Your task to perform on an android device: Check the weather Image 0: 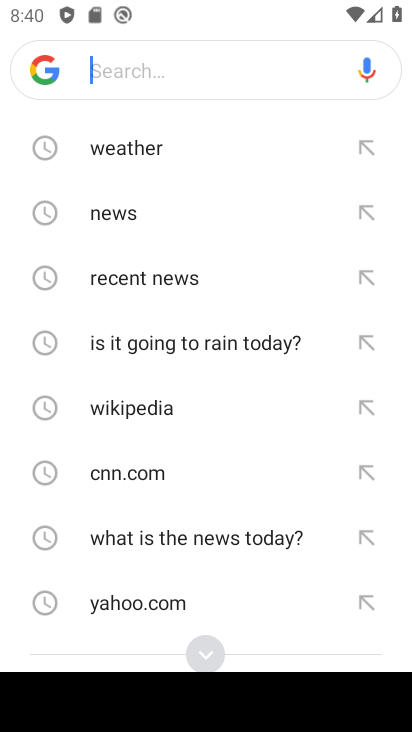
Step 0: press home button
Your task to perform on an android device: Check the weather Image 1: 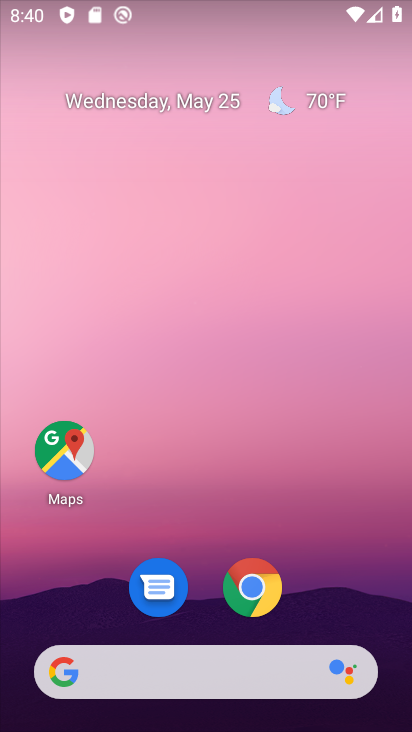
Step 1: click (290, 89)
Your task to perform on an android device: Check the weather Image 2: 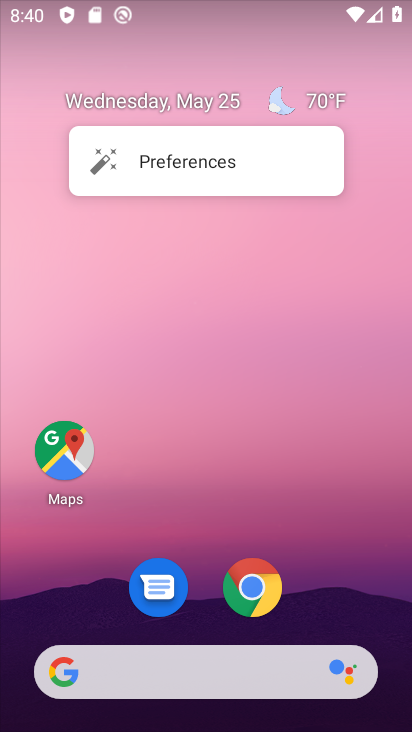
Step 2: click (335, 91)
Your task to perform on an android device: Check the weather Image 3: 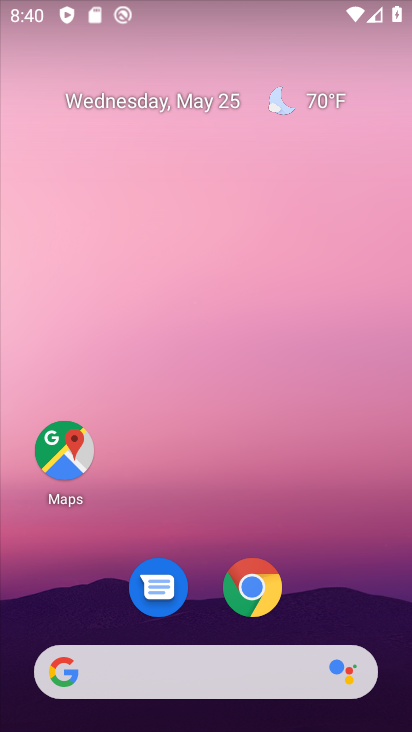
Step 3: click (309, 112)
Your task to perform on an android device: Check the weather Image 4: 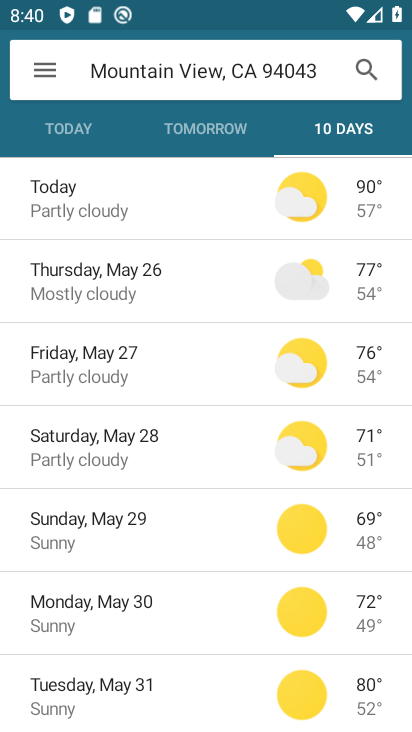
Step 4: drag from (147, 453) to (151, 299)
Your task to perform on an android device: Check the weather Image 5: 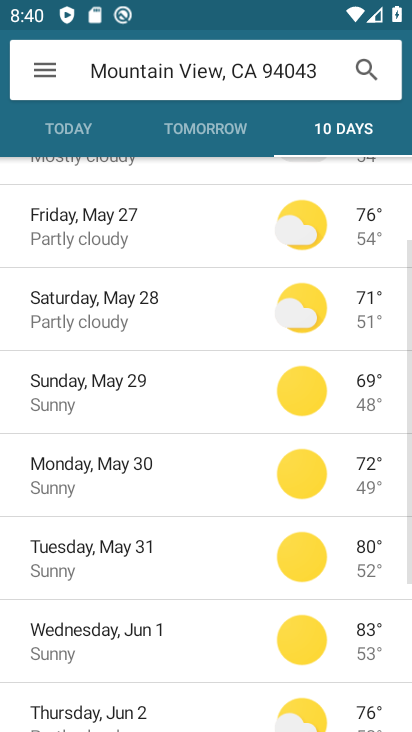
Step 5: click (77, 131)
Your task to perform on an android device: Check the weather Image 6: 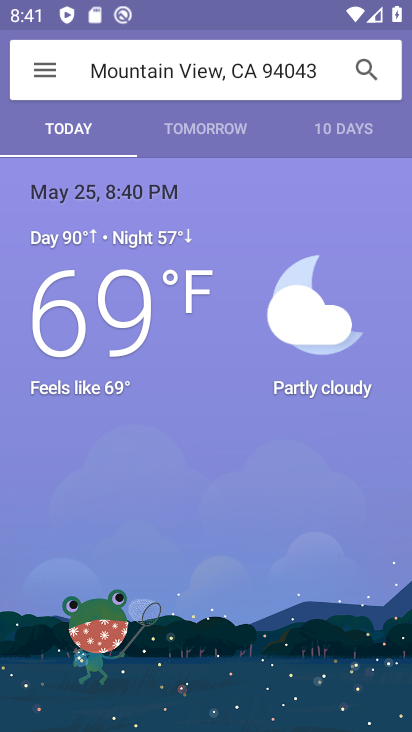
Step 6: task complete